Your task to perform on an android device: toggle data saver in the chrome app Image 0: 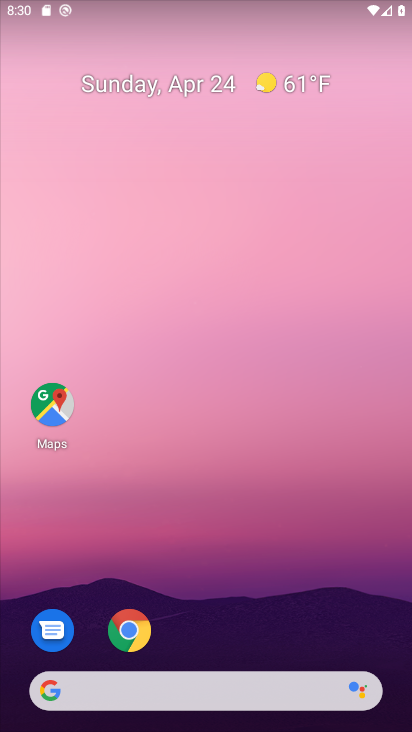
Step 0: drag from (351, 641) to (356, 58)
Your task to perform on an android device: toggle data saver in the chrome app Image 1: 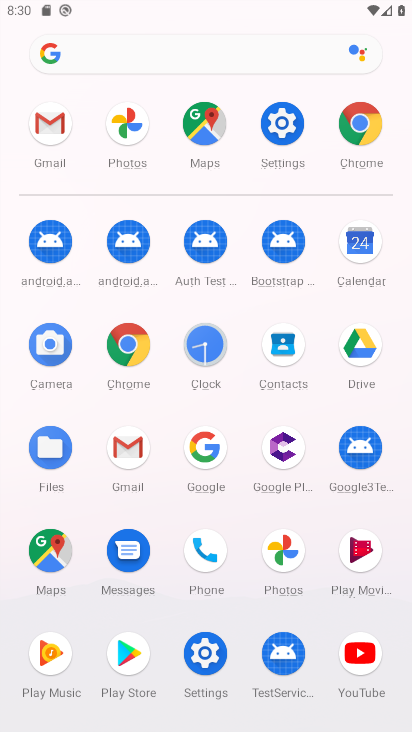
Step 1: click (362, 130)
Your task to perform on an android device: toggle data saver in the chrome app Image 2: 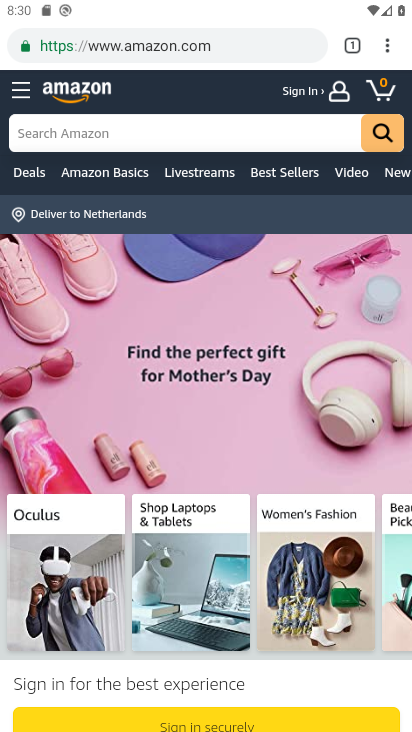
Step 2: click (386, 42)
Your task to perform on an android device: toggle data saver in the chrome app Image 3: 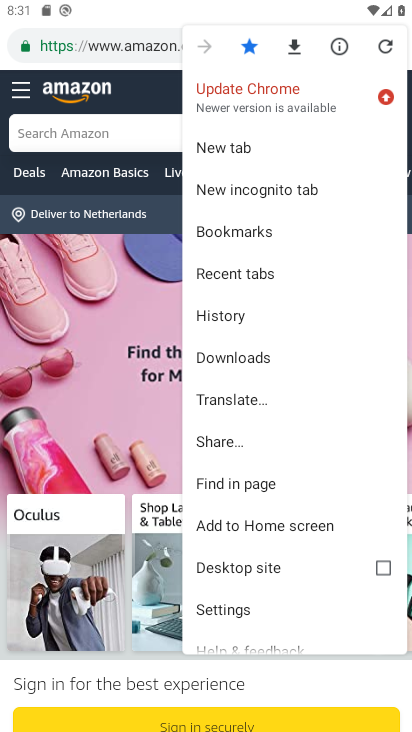
Step 3: drag from (368, 448) to (371, 258)
Your task to perform on an android device: toggle data saver in the chrome app Image 4: 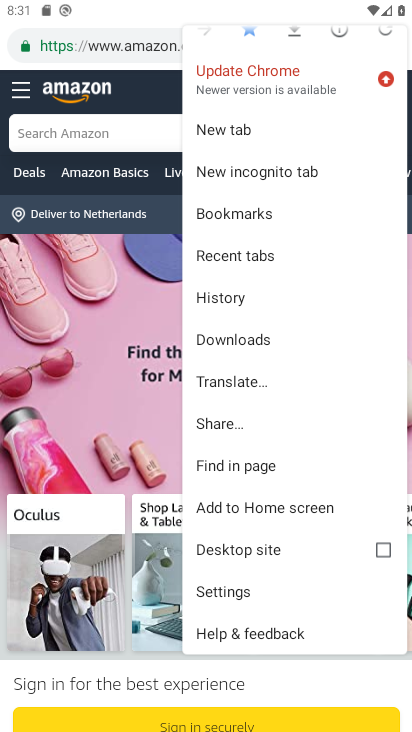
Step 4: click (247, 596)
Your task to perform on an android device: toggle data saver in the chrome app Image 5: 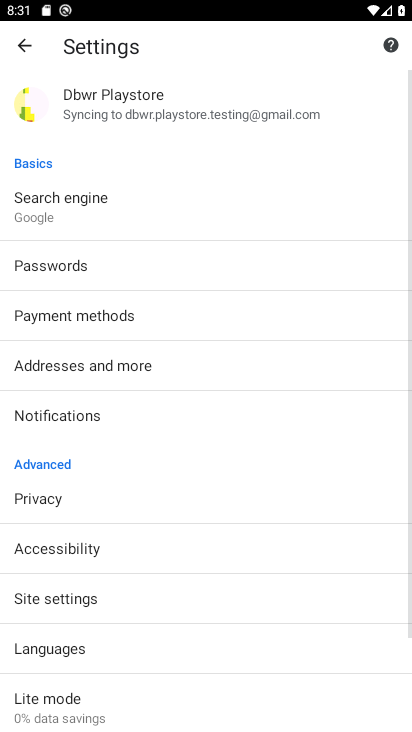
Step 5: drag from (245, 601) to (268, 452)
Your task to perform on an android device: toggle data saver in the chrome app Image 6: 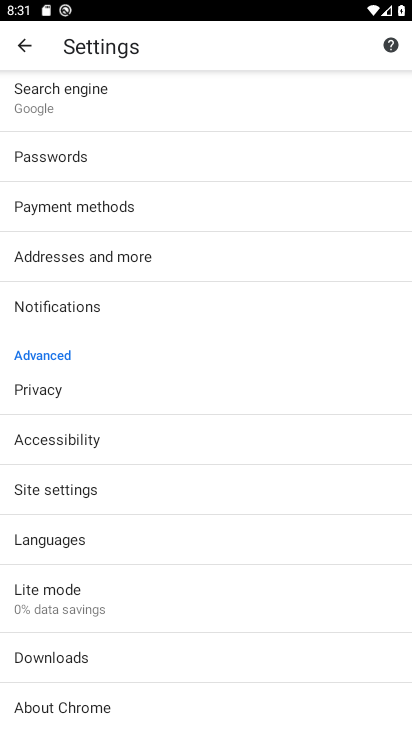
Step 6: drag from (287, 633) to (291, 414)
Your task to perform on an android device: toggle data saver in the chrome app Image 7: 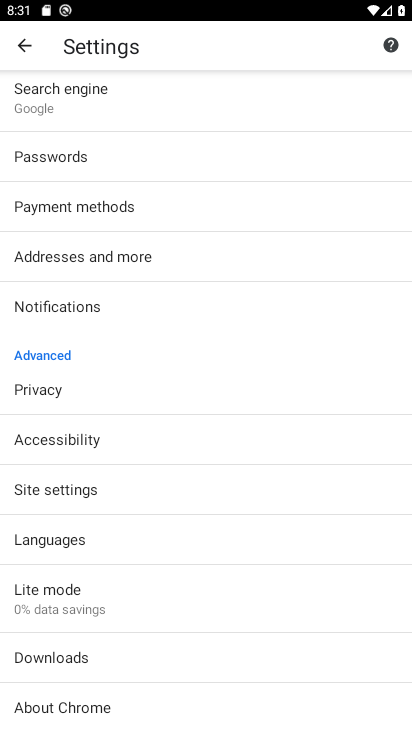
Step 7: drag from (299, 316) to (305, 443)
Your task to perform on an android device: toggle data saver in the chrome app Image 8: 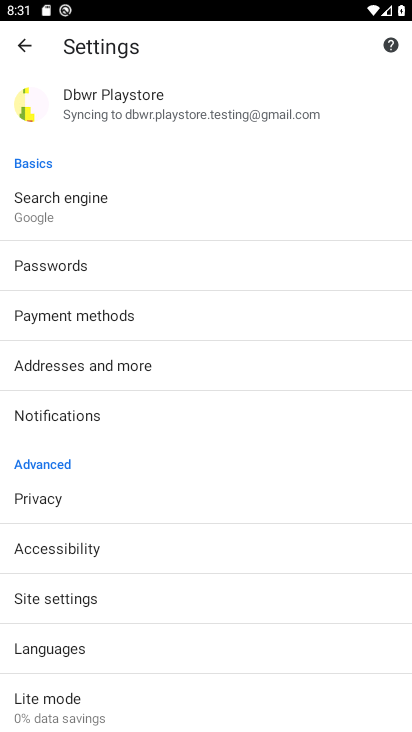
Step 8: drag from (293, 271) to (299, 522)
Your task to perform on an android device: toggle data saver in the chrome app Image 9: 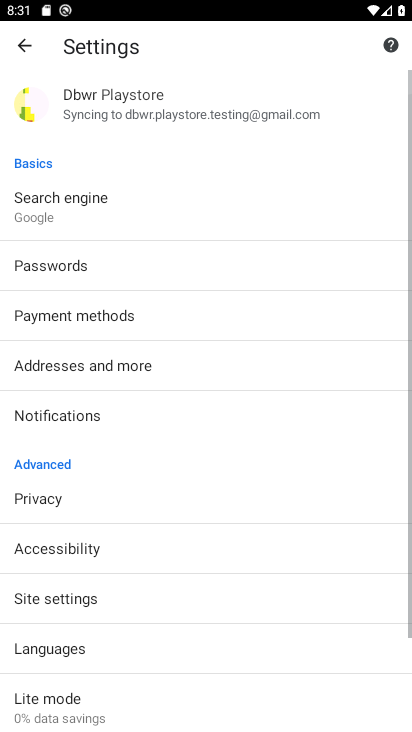
Step 9: drag from (284, 589) to (300, 315)
Your task to perform on an android device: toggle data saver in the chrome app Image 10: 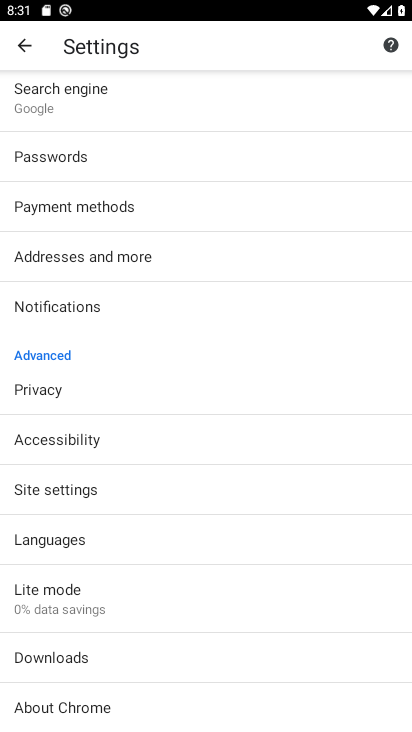
Step 10: click (246, 596)
Your task to perform on an android device: toggle data saver in the chrome app Image 11: 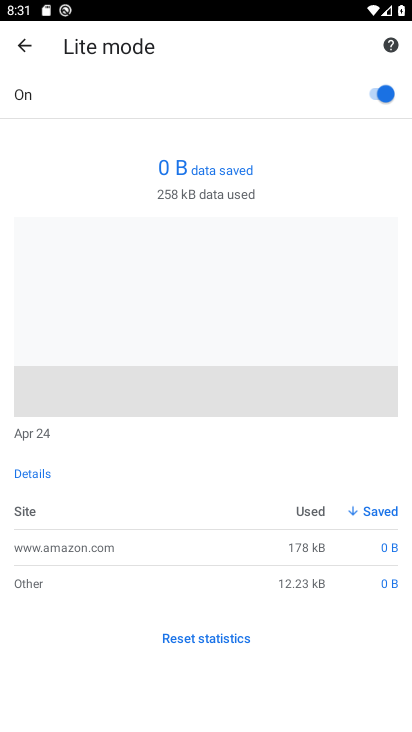
Step 11: drag from (247, 582) to (270, 431)
Your task to perform on an android device: toggle data saver in the chrome app Image 12: 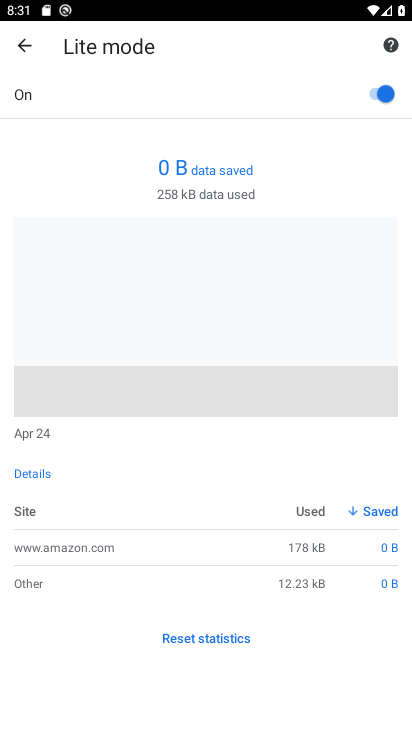
Step 12: click (375, 94)
Your task to perform on an android device: toggle data saver in the chrome app Image 13: 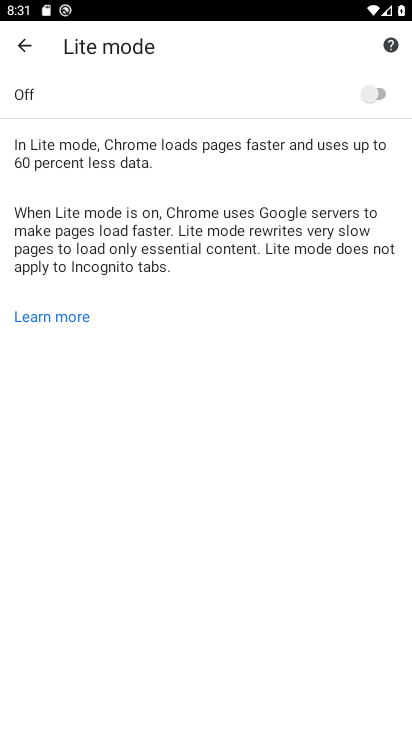
Step 13: task complete